Your task to perform on an android device: find photos in the google photos app Image 0: 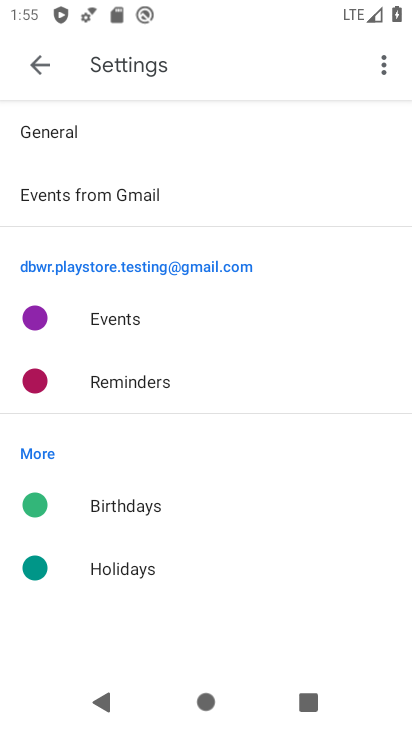
Step 0: press home button
Your task to perform on an android device: find photos in the google photos app Image 1: 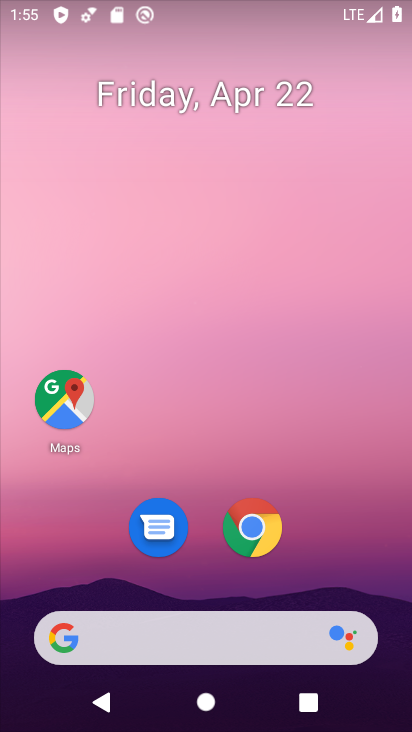
Step 1: drag from (334, 521) to (40, 117)
Your task to perform on an android device: find photos in the google photos app Image 2: 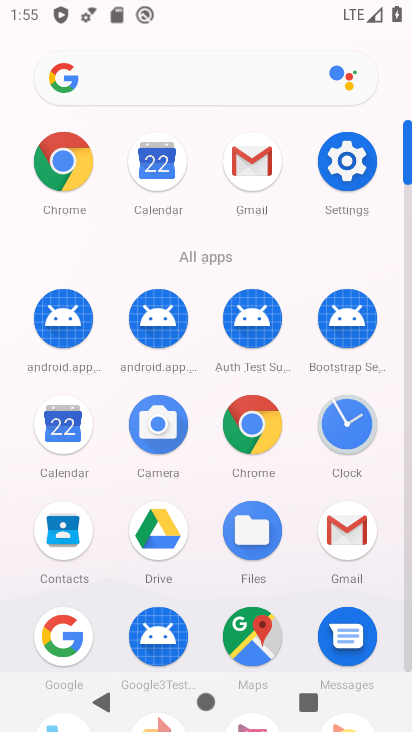
Step 2: drag from (195, 613) to (194, 220)
Your task to perform on an android device: find photos in the google photos app Image 3: 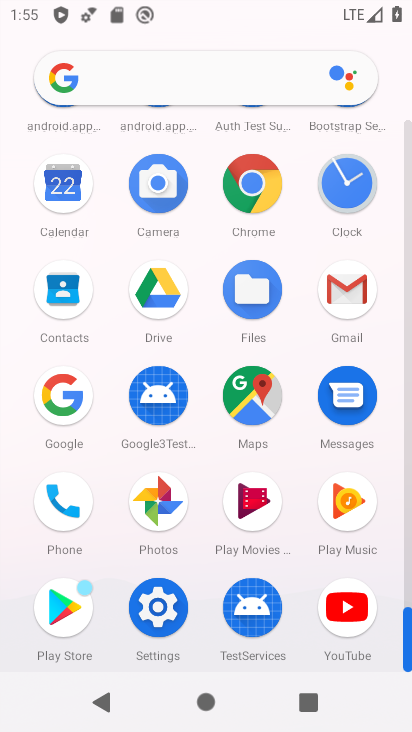
Step 3: click (153, 519)
Your task to perform on an android device: find photos in the google photos app Image 4: 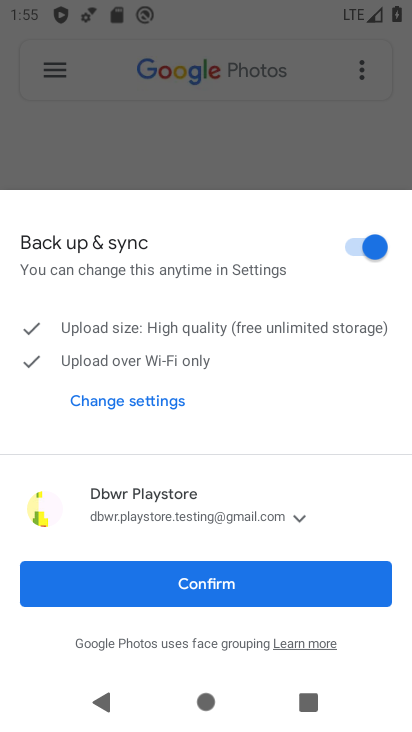
Step 4: click (254, 595)
Your task to perform on an android device: find photos in the google photos app Image 5: 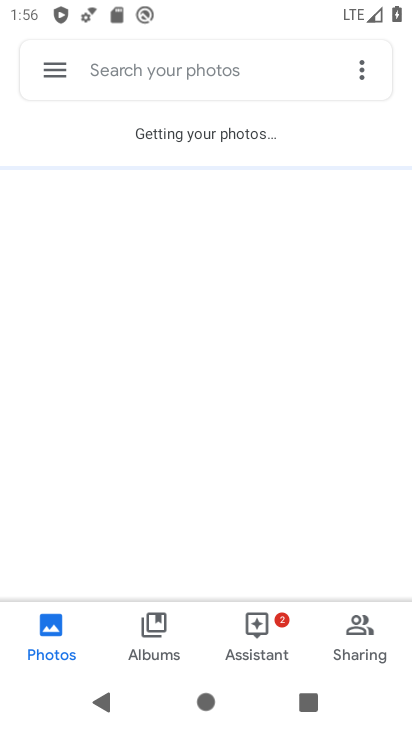
Step 5: click (142, 460)
Your task to perform on an android device: find photos in the google photos app Image 6: 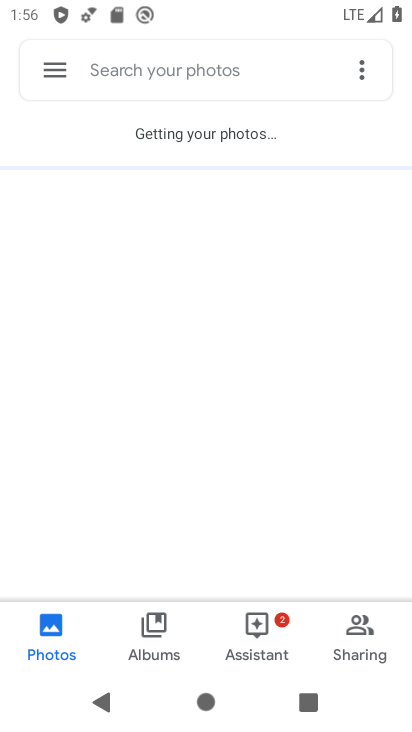
Step 6: task complete